Your task to perform on an android device: See recent photos Image 0: 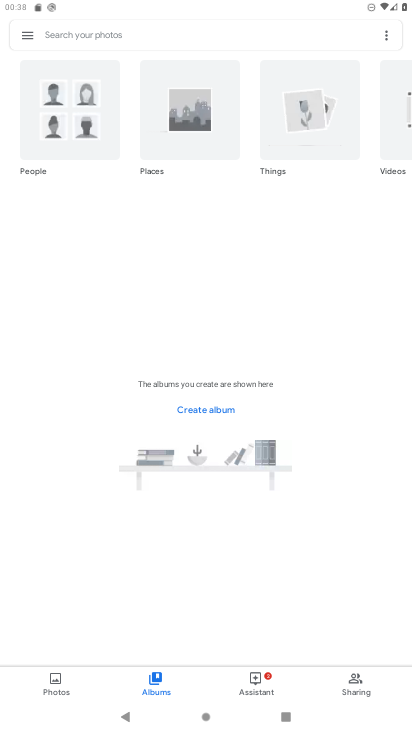
Step 0: press home button
Your task to perform on an android device: See recent photos Image 1: 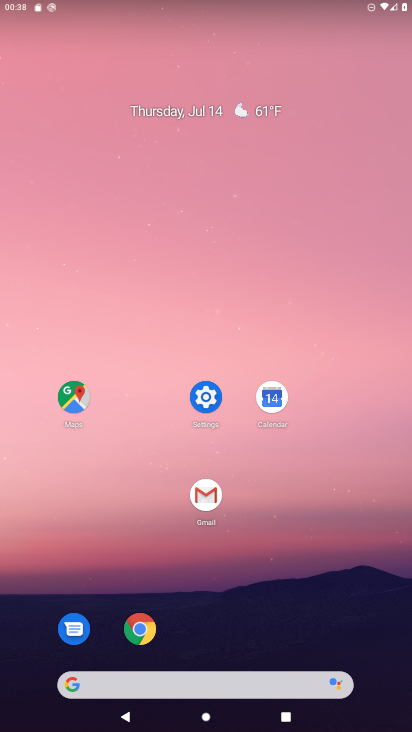
Step 1: drag from (384, 707) to (332, 45)
Your task to perform on an android device: See recent photos Image 2: 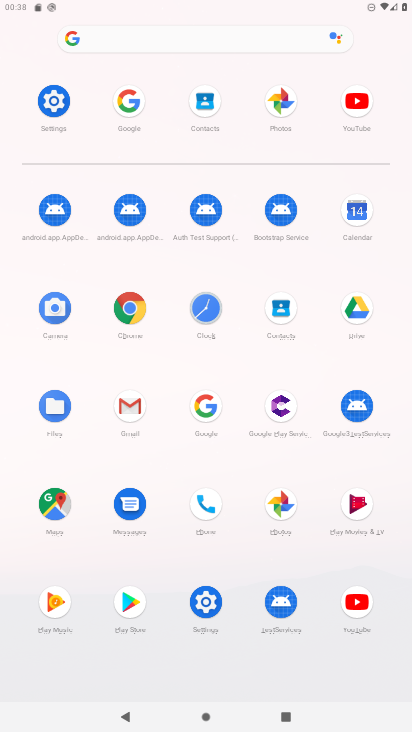
Step 2: click (280, 515)
Your task to perform on an android device: See recent photos Image 3: 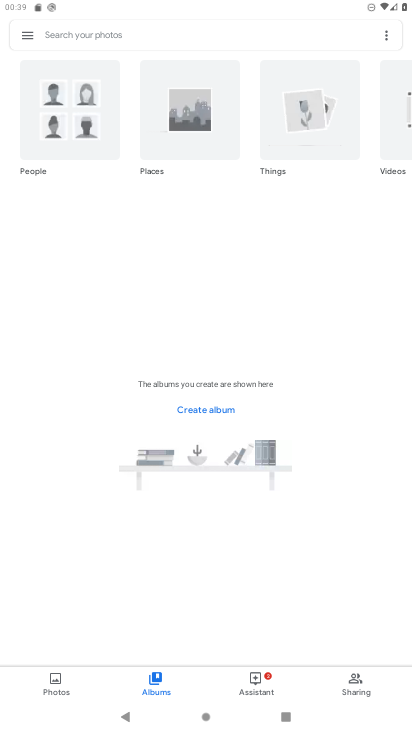
Step 3: click (51, 683)
Your task to perform on an android device: See recent photos Image 4: 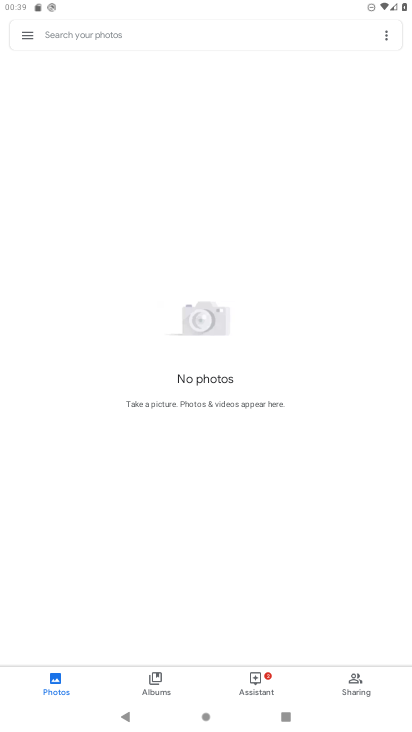
Step 4: task complete